Your task to perform on an android device: Go to ESPN.com Image 0: 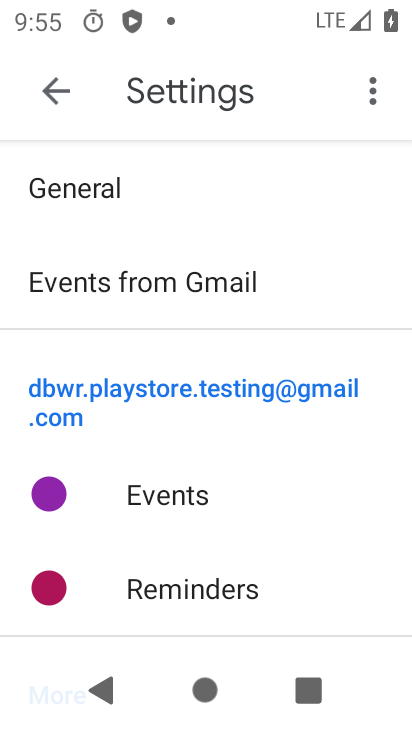
Step 0: press home button
Your task to perform on an android device: Go to ESPN.com Image 1: 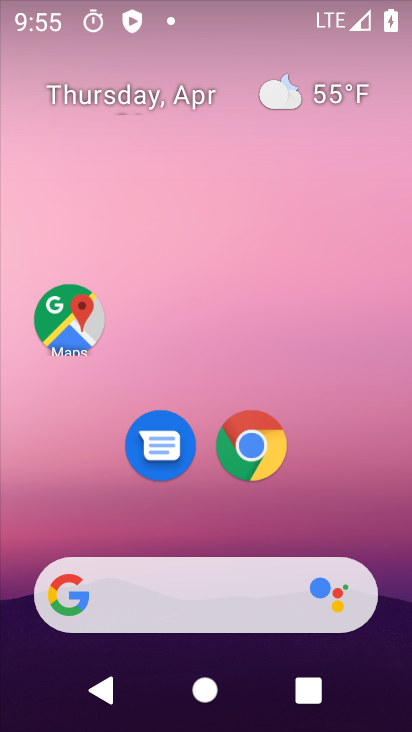
Step 1: click (256, 453)
Your task to perform on an android device: Go to ESPN.com Image 2: 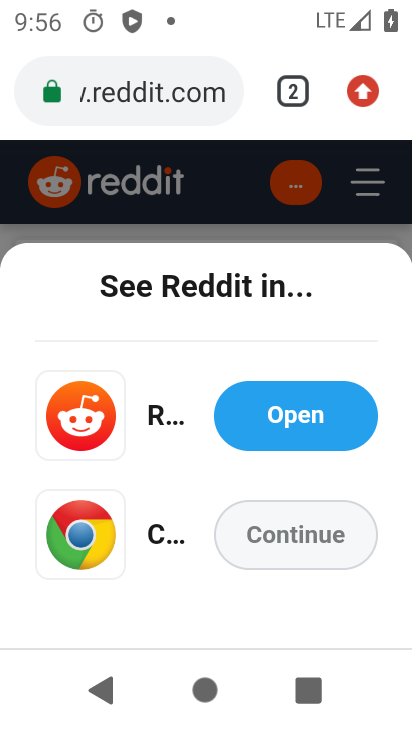
Step 2: click (156, 95)
Your task to perform on an android device: Go to ESPN.com Image 3: 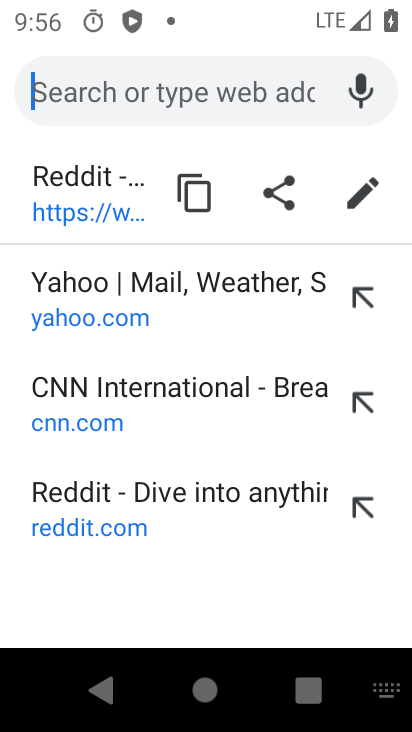
Step 3: type "espn.com"
Your task to perform on an android device: Go to ESPN.com Image 4: 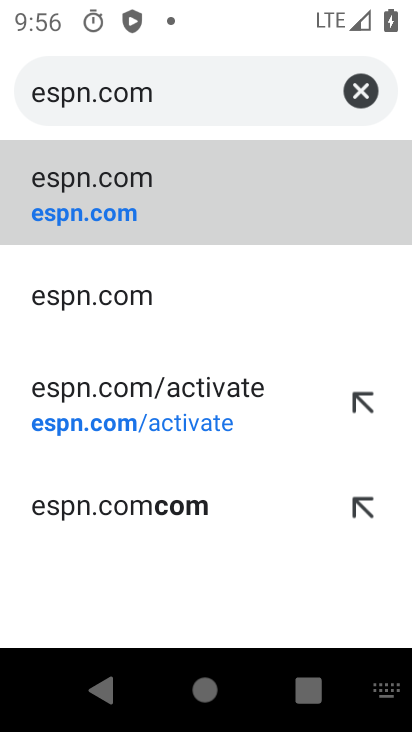
Step 4: click (95, 198)
Your task to perform on an android device: Go to ESPN.com Image 5: 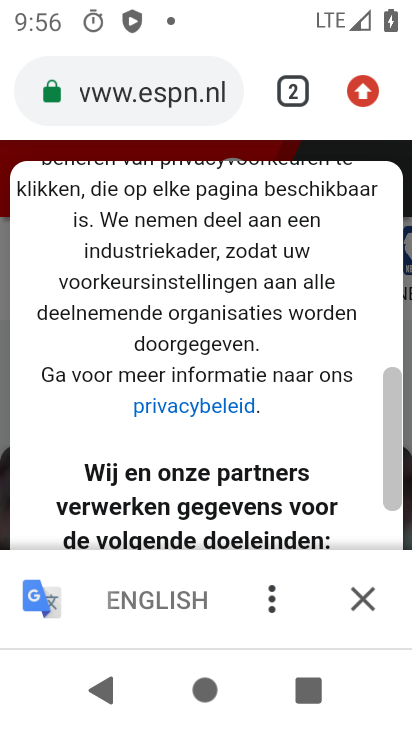
Step 5: task complete